Your task to perform on an android device: turn off picture-in-picture Image 0: 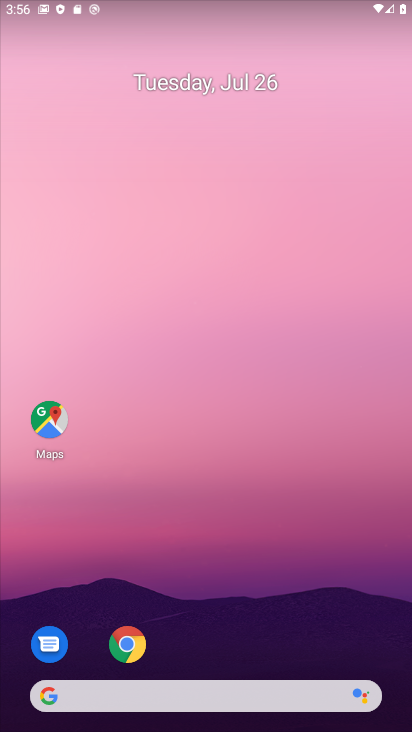
Step 0: drag from (397, 678) to (377, 167)
Your task to perform on an android device: turn off picture-in-picture Image 1: 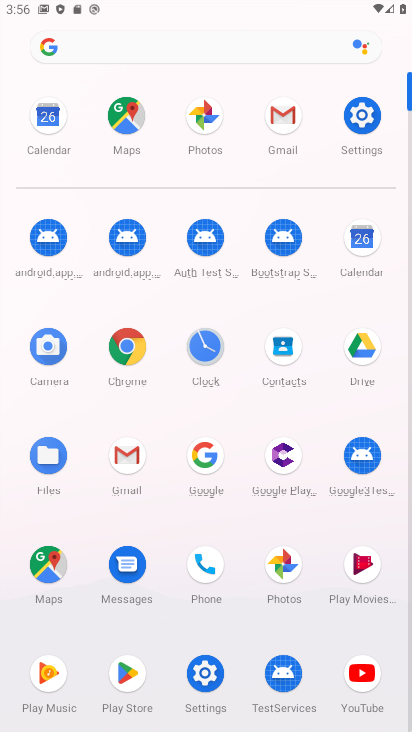
Step 1: click (204, 672)
Your task to perform on an android device: turn off picture-in-picture Image 2: 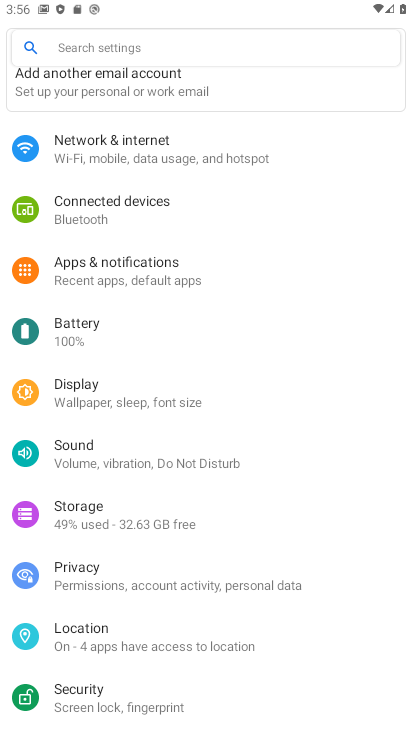
Step 2: click (100, 276)
Your task to perform on an android device: turn off picture-in-picture Image 3: 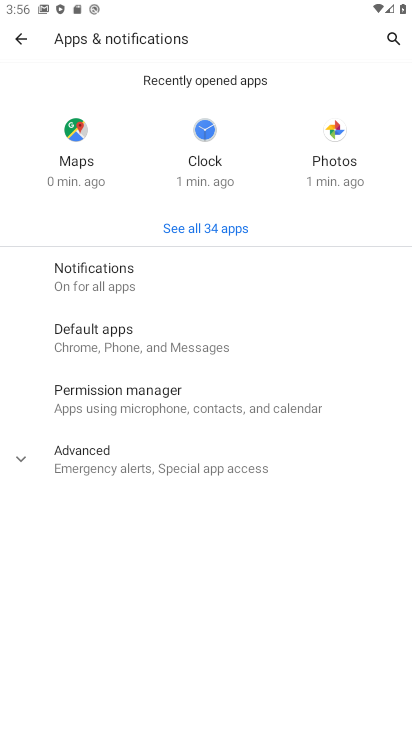
Step 3: click (19, 459)
Your task to perform on an android device: turn off picture-in-picture Image 4: 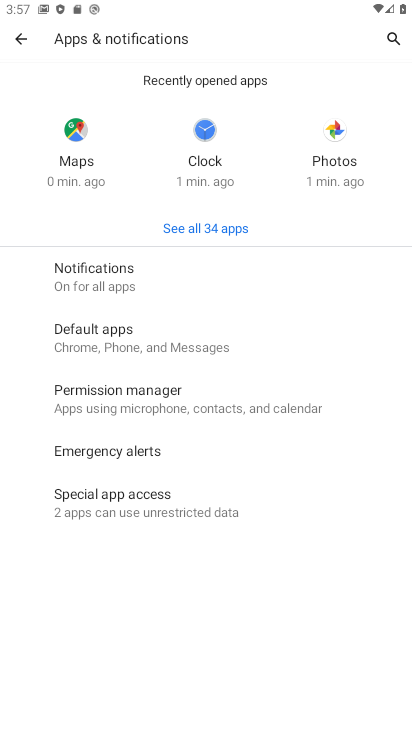
Step 4: click (109, 508)
Your task to perform on an android device: turn off picture-in-picture Image 5: 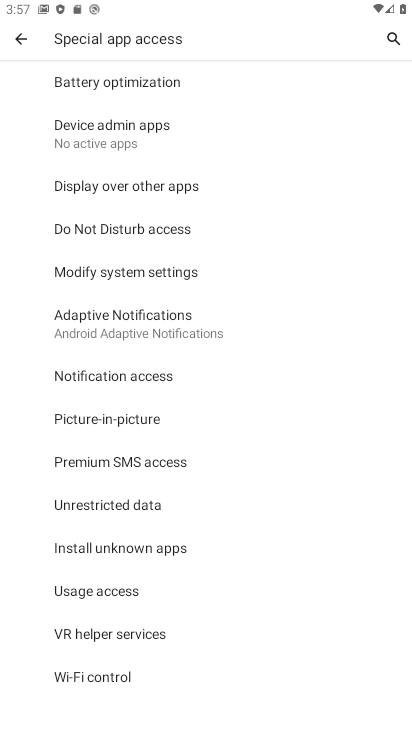
Step 5: click (101, 413)
Your task to perform on an android device: turn off picture-in-picture Image 6: 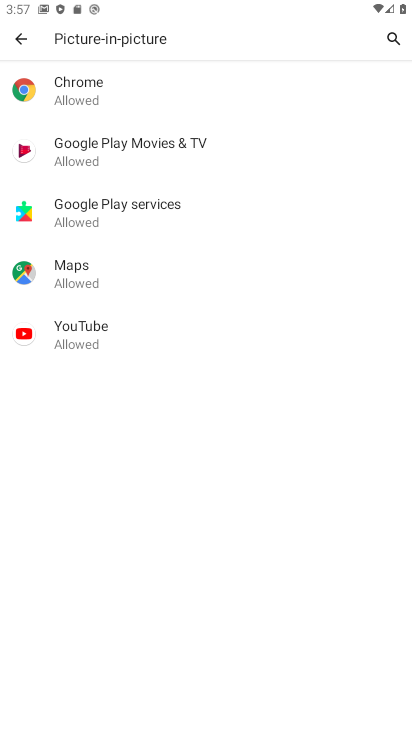
Step 6: click (65, 330)
Your task to perform on an android device: turn off picture-in-picture Image 7: 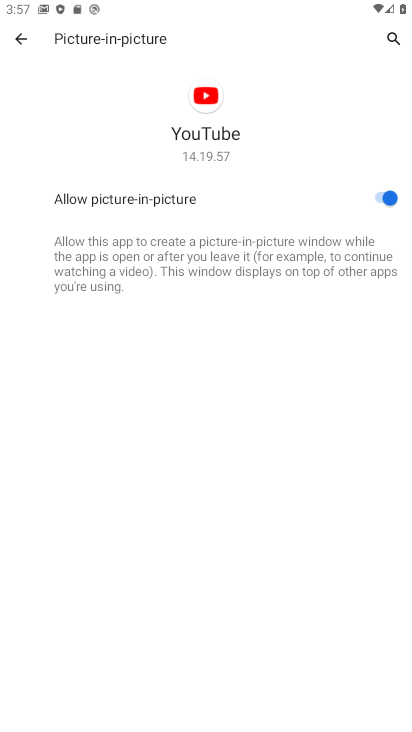
Step 7: click (375, 195)
Your task to perform on an android device: turn off picture-in-picture Image 8: 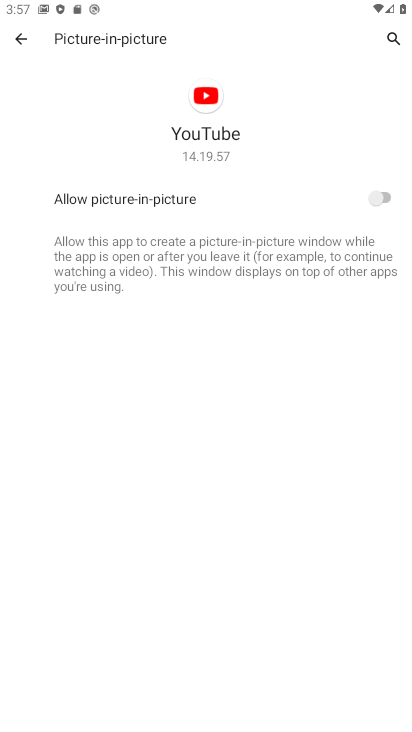
Step 8: task complete